Your task to perform on an android device: choose inbox layout in the gmail app Image 0: 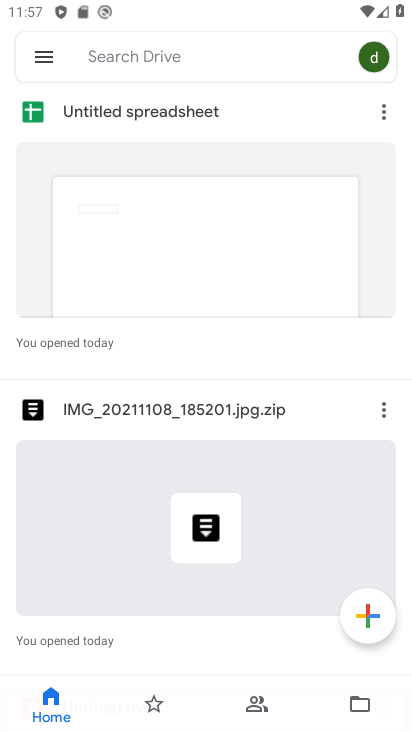
Step 0: press home button
Your task to perform on an android device: choose inbox layout in the gmail app Image 1: 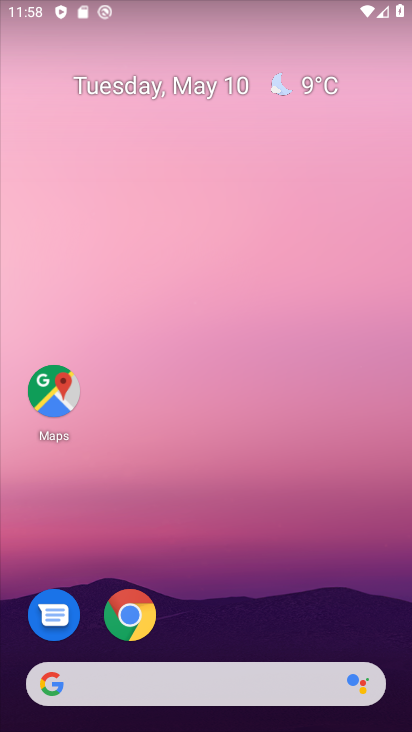
Step 1: drag from (265, 584) to (187, 140)
Your task to perform on an android device: choose inbox layout in the gmail app Image 2: 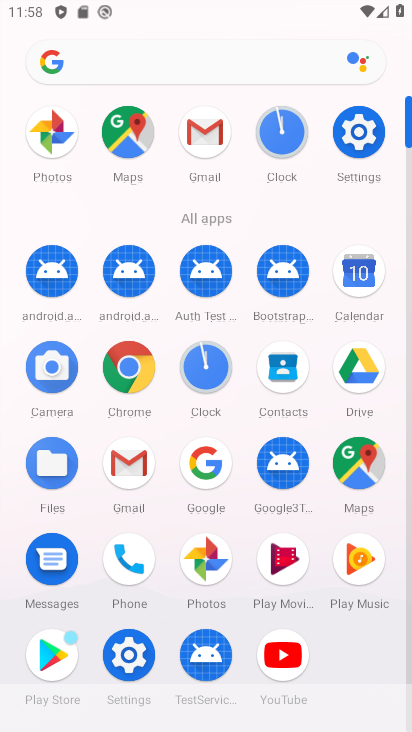
Step 2: click (150, 462)
Your task to perform on an android device: choose inbox layout in the gmail app Image 3: 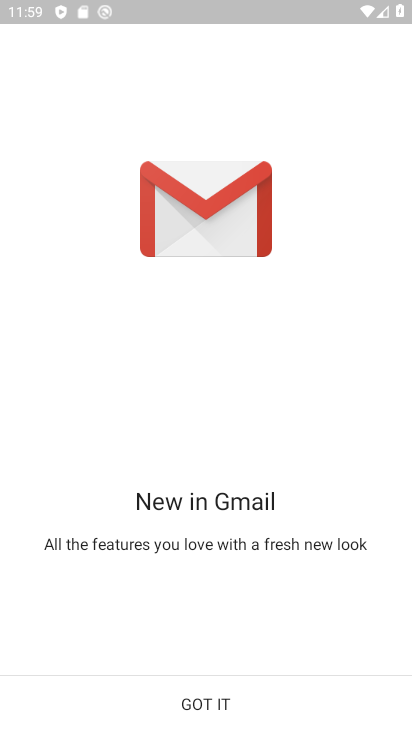
Step 3: click (162, 708)
Your task to perform on an android device: choose inbox layout in the gmail app Image 4: 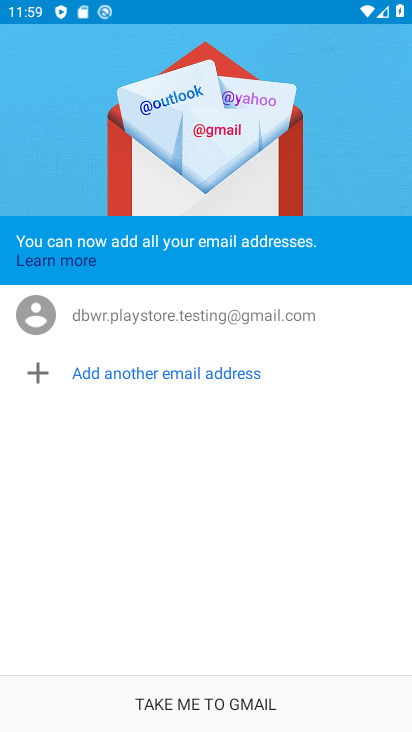
Step 4: click (162, 708)
Your task to perform on an android device: choose inbox layout in the gmail app Image 5: 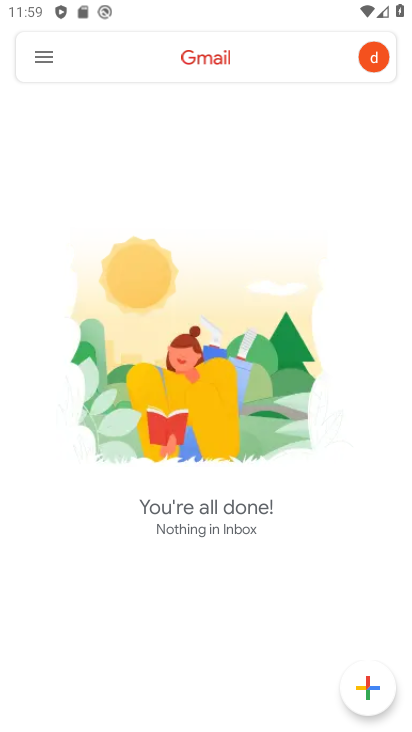
Step 5: click (162, 708)
Your task to perform on an android device: choose inbox layout in the gmail app Image 6: 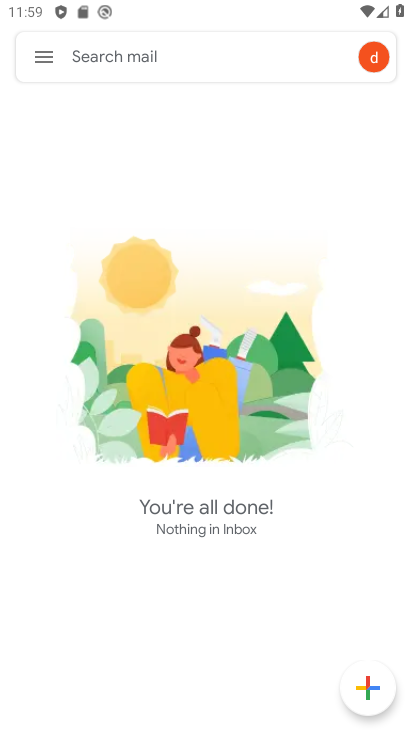
Step 6: click (45, 60)
Your task to perform on an android device: choose inbox layout in the gmail app Image 7: 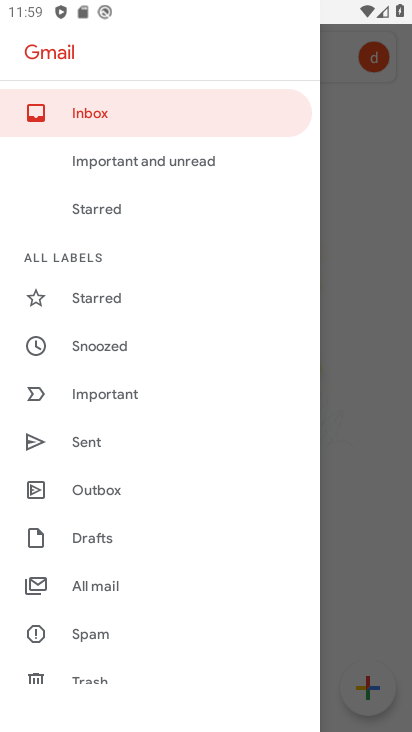
Step 7: task complete